Your task to perform on an android device: turn on translation in the chrome app Image 0: 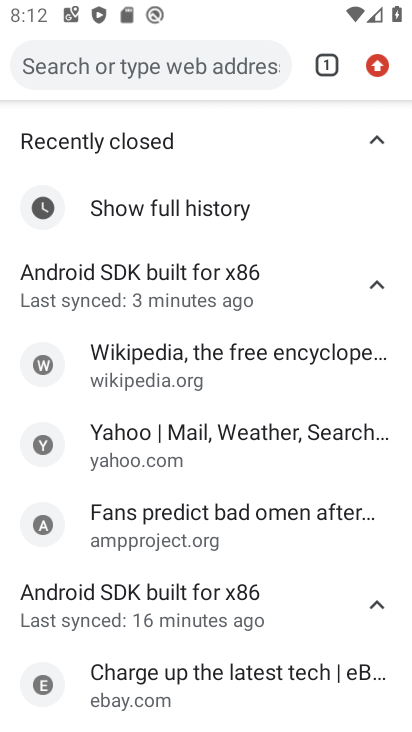
Step 0: click (372, 66)
Your task to perform on an android device: turn on translation in the chrome app Image 1: 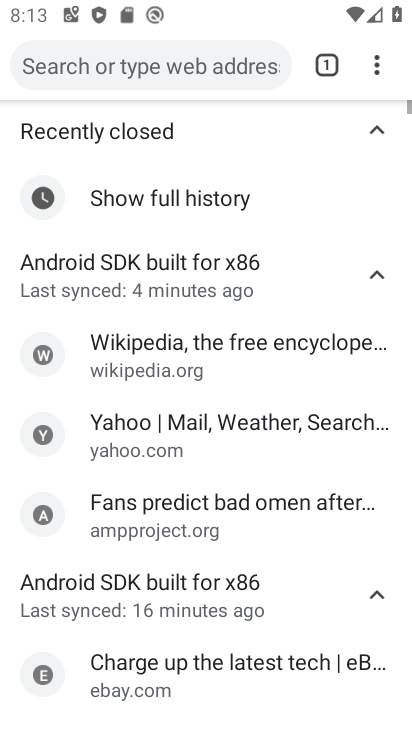
Step 1: click (374, 57)
Your task to perform on an android device: turn on translation in the chrome app Image 2: 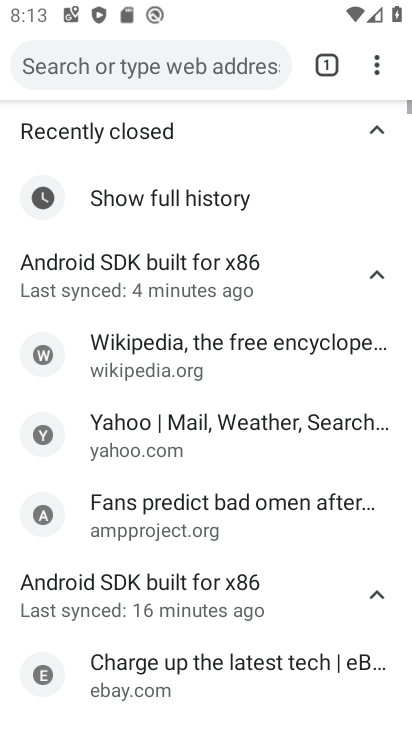
Step 2: click (364, 54)
Your task to perform on an android device: turn on translation in the chrome app Image 3: 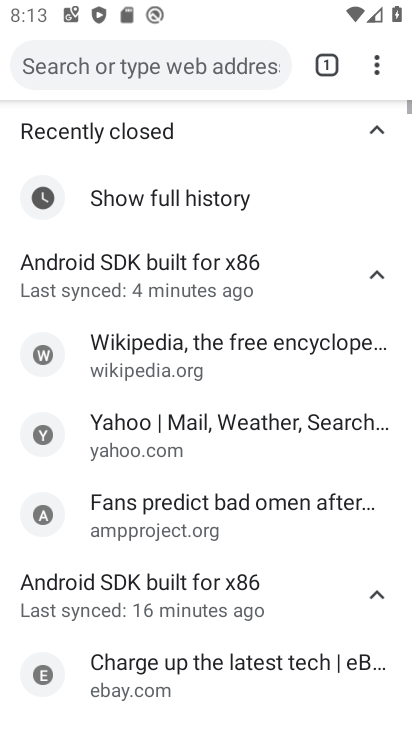
Step 3: click (366, 87)
Your task to perform on an android device: turn on translation in the chrome app Image 4: 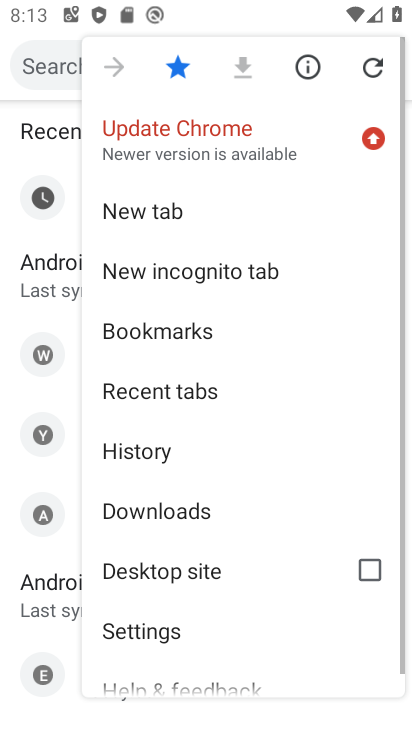
Step 4: click (365, 79)
Your task to perform on an android device: turn on translation in the chrome app Image 5: 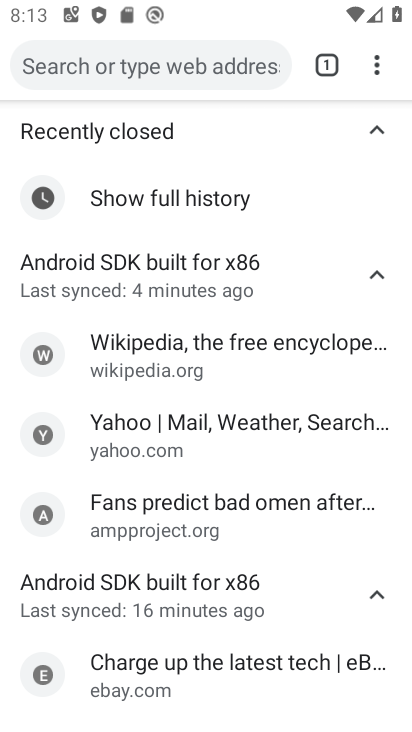
Step 5: click (376, 78)
Your task to perform on an android device: turn on translation in the chrome app Image 6: 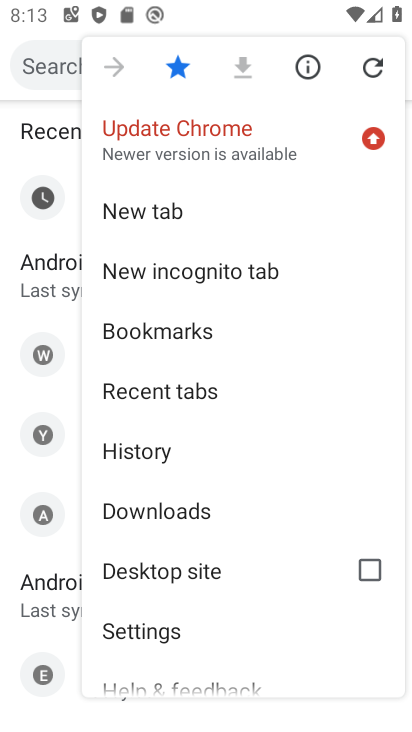
Step 6: click (172, 630)
Your task to perform on an android device: turn on translation in the chrome app Image 7: 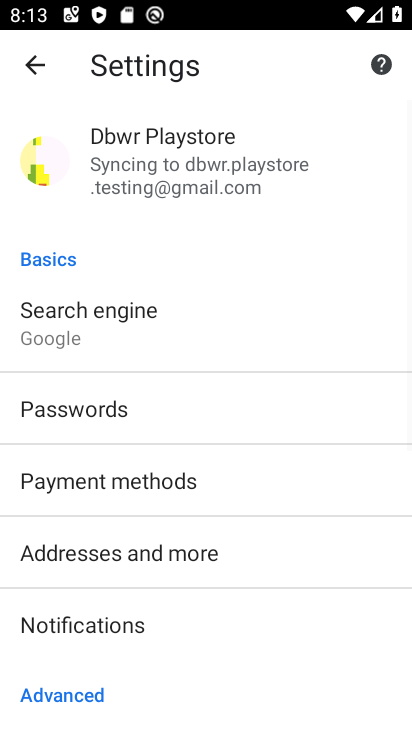
Step 7: drag from (169, 570) to (126, 170)
Your task to perform on an android device: turn on translation in the chrome app Image 8: 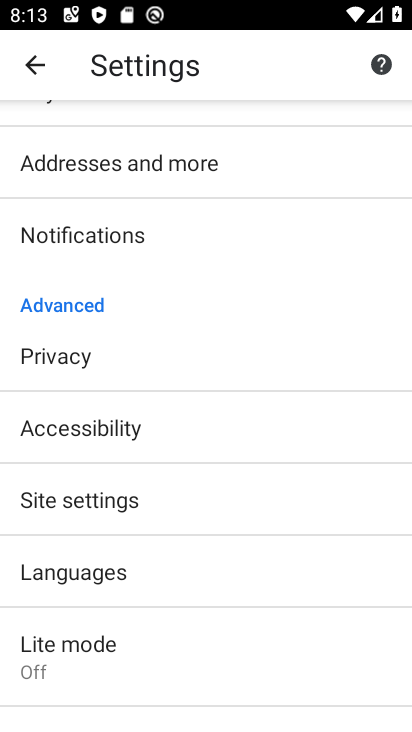
Step 8: click (62, 566)
Your task to perform on an android device: turn on translation in the chrome app Image 9: 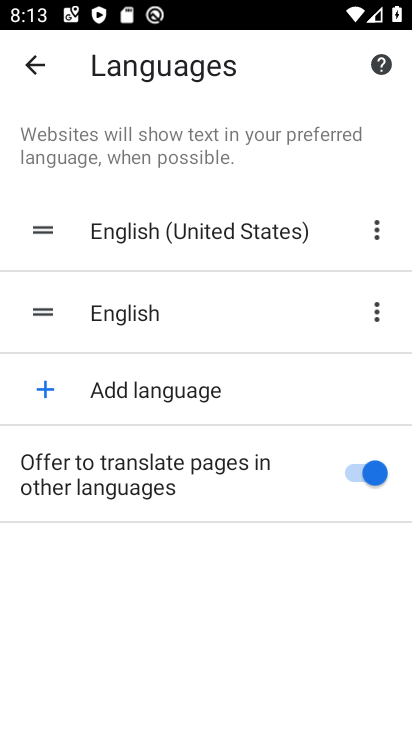
Step 9: task complete